Your task to perform on an android device: Search for Italian restaurants on Maps Image 0: 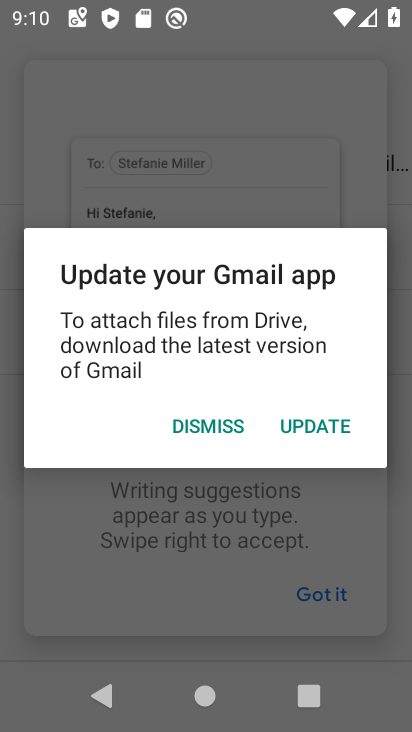
Step 0: press home button
Your task to perform on an android device: Search for Italian restaurants on Maps Image 1: 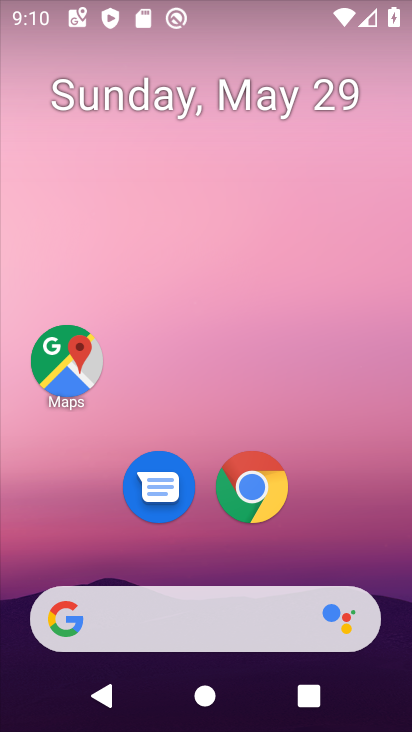
Step 1: click (59, 348)
Your task to perform on an android device: Search for Italian restaurants on Maps Image 2: 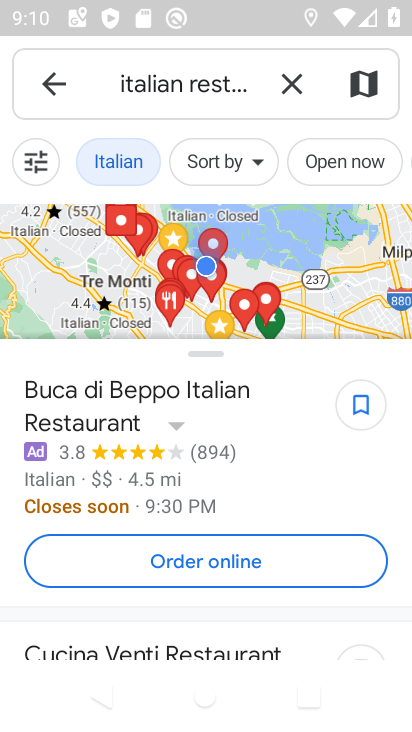
Step 2: task complete